Your task to perform on an android device: Open display settings Image 0: 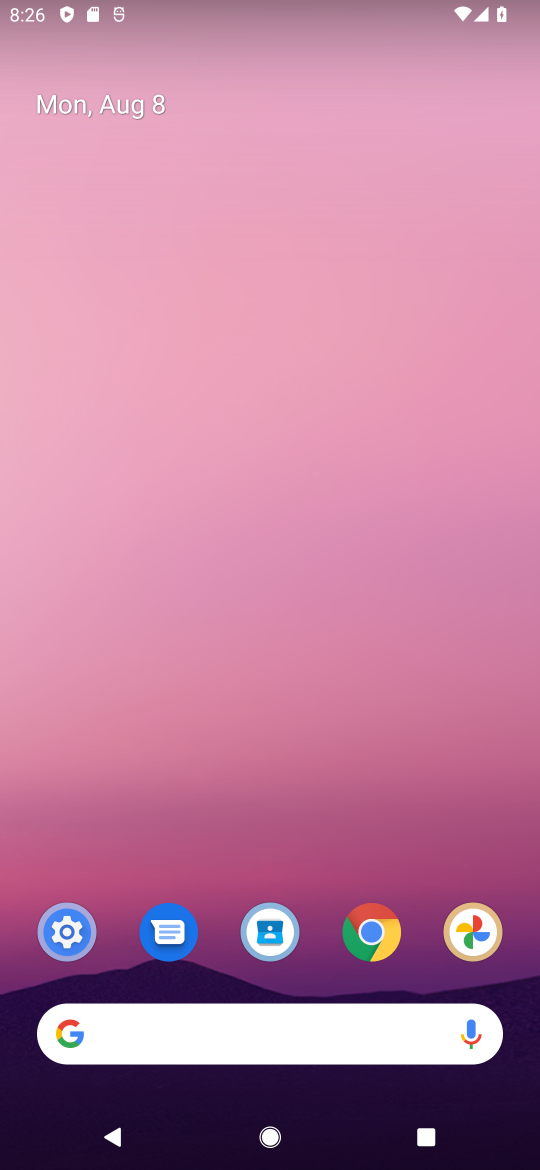
Step 0: click (57, 923)
Your task to perform on an android device: Open display settings Image 1: 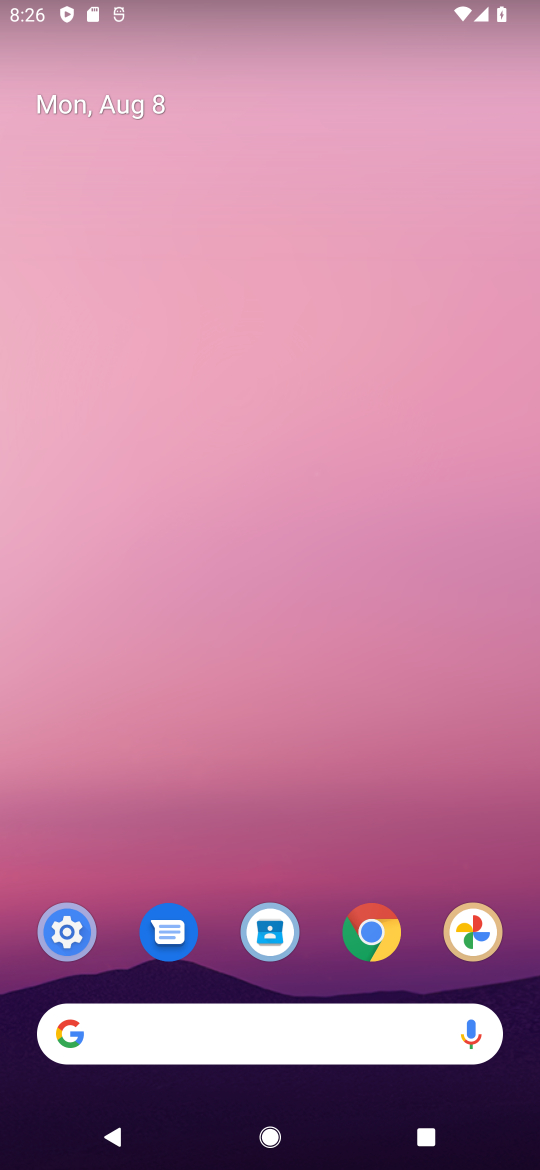
Step 1: click (50, 946)
Your task to perform on an android device: Open display settings Image 2: 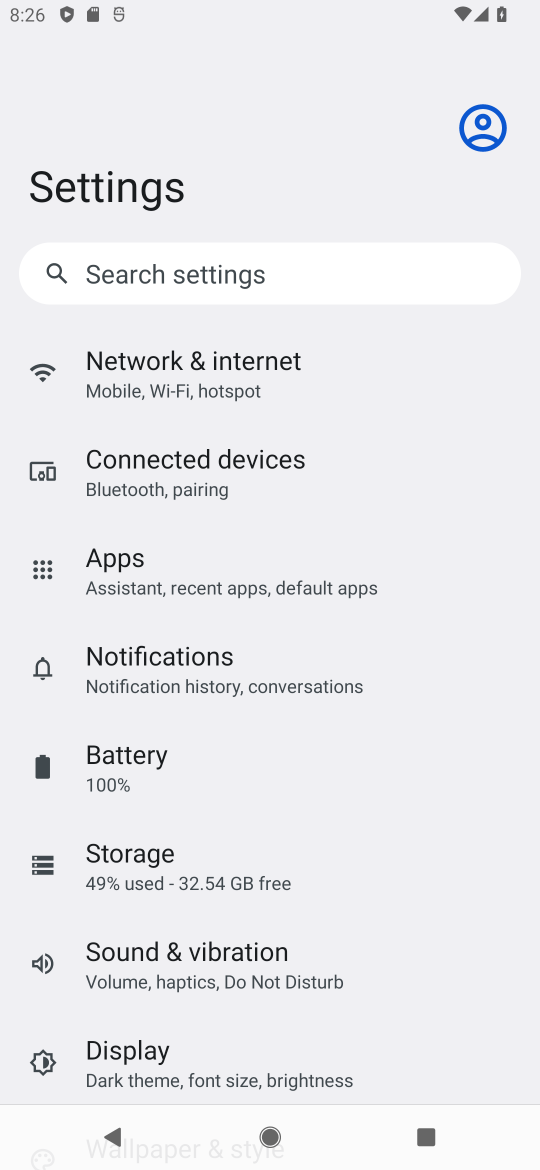
Step 2: click (220, 1061)
Your task to perform on an android device: Open display settings Image 3: 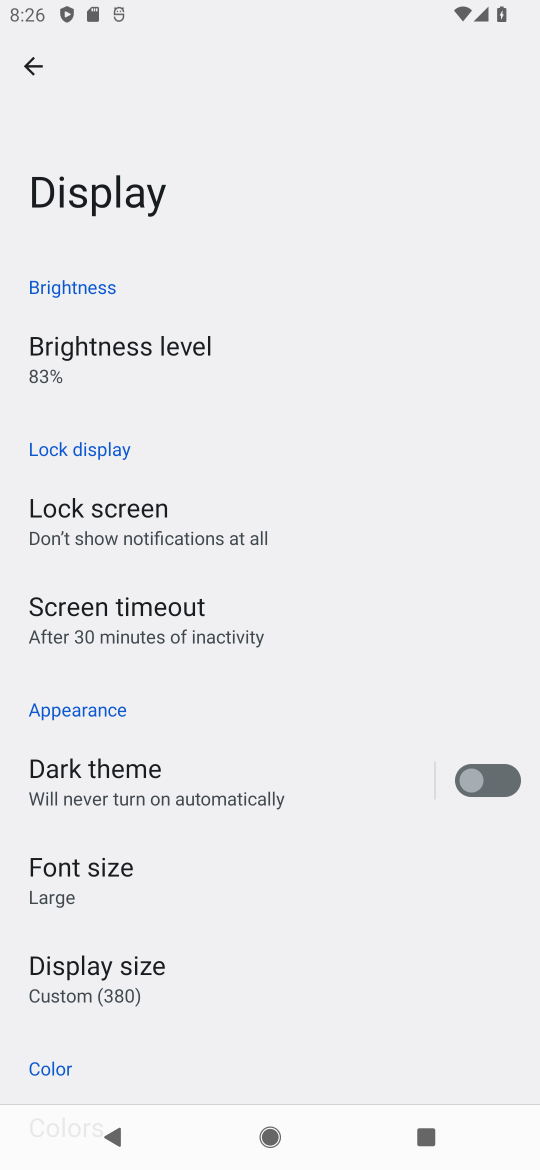
Step 3: task complete